Your task to perform on an android device: Show me popular games on the Play Store Image 0: 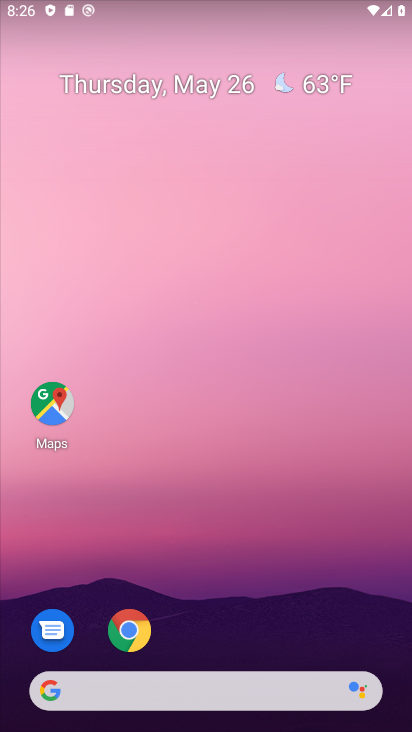
Step 0: click (231, 245)
Your task to perform on an android device: Show me popular games on the Play Store Image 1: 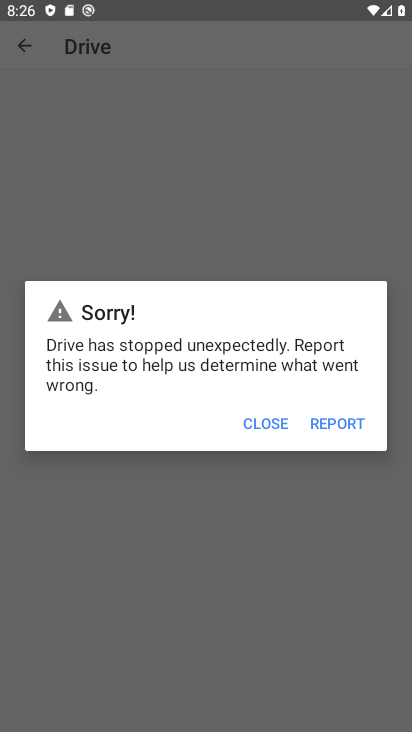
Step 1: press back button
Your task to perform on an android device: Show me popular games on the Play Store Image 2: 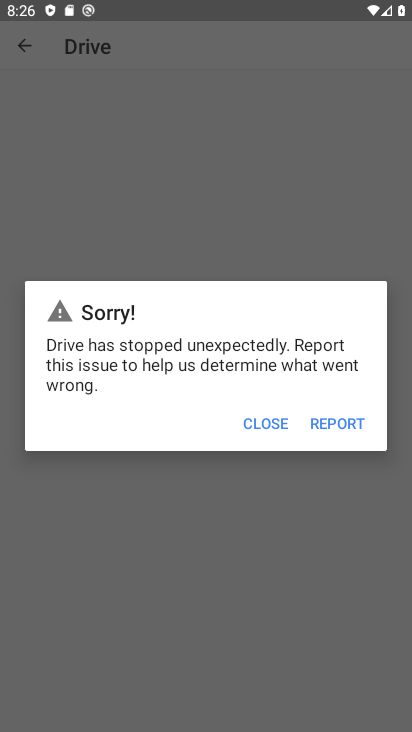
Step 2: press back button
Your task to perform on an android device: Show me popular games on the Play Store Image 3: 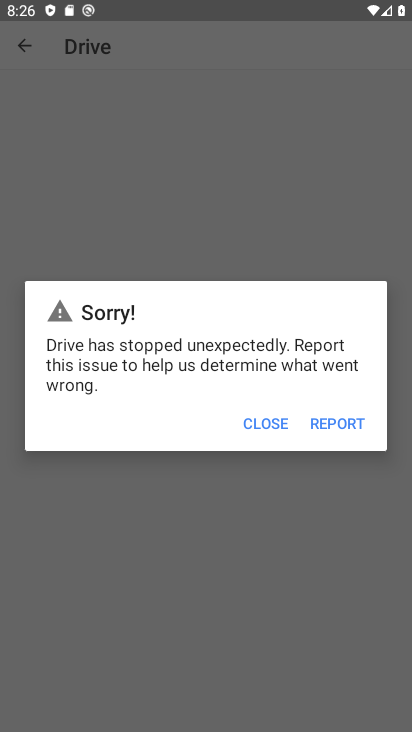
Step 3: press back button
Your task to perform on an android device: Show me popular games on the Play Store Image 4: 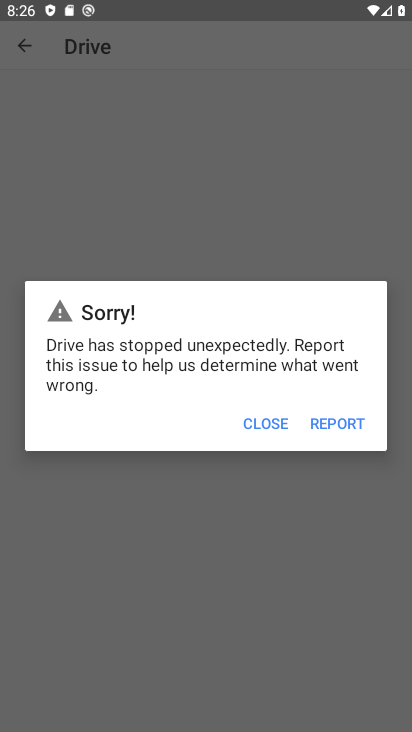
Step 4: press back button
Your task to perform on an android device: Show me popular games on the Play Store Image 5: 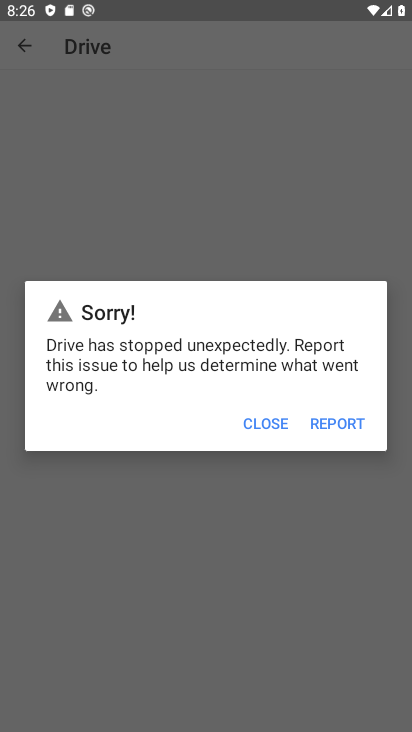
Step 5: click (271, 423)
Your task to perform on an android device: Show me popular games on the Play Store Image 6: 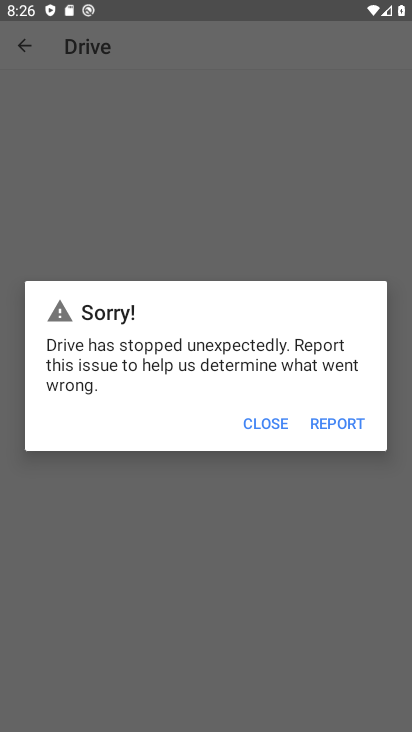
Step 6: click (272, 423)
Your task to perform on an android device: Show me popular games on the Play Store Image 7: 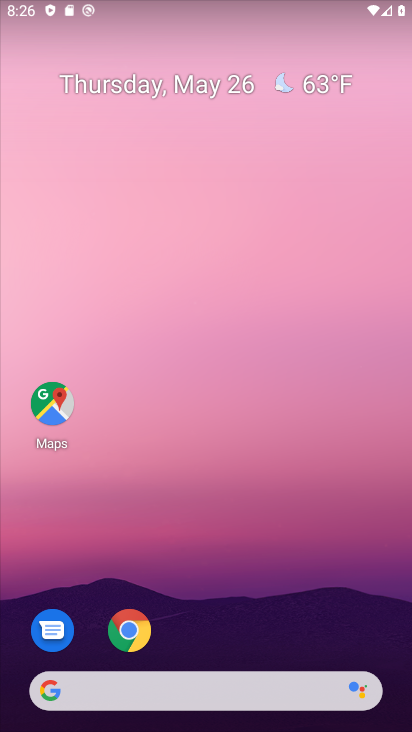
Step 7: drag from (202, 694) to (196, 128)
Your task to perform on an android device: Show me popular games on the Play Store Image 8: 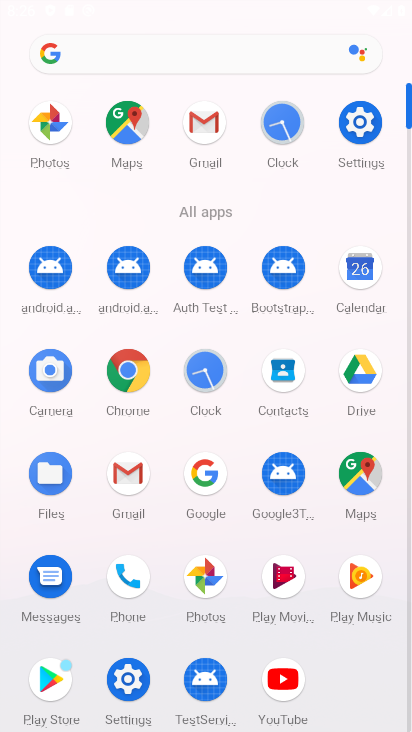
Step 8: click (55, 683)
Your task to perform on an android device: Show me popular games on the Play Store Image 9: 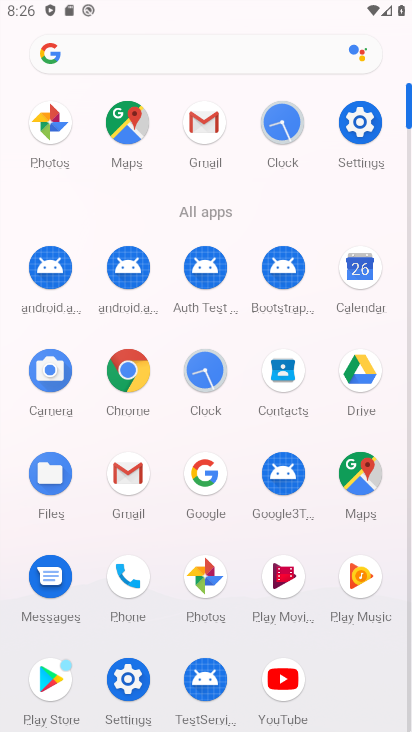
Step 9: click (56, 683)
Your task to perform on an android device: Show me popular games on the Play Store Image 10: 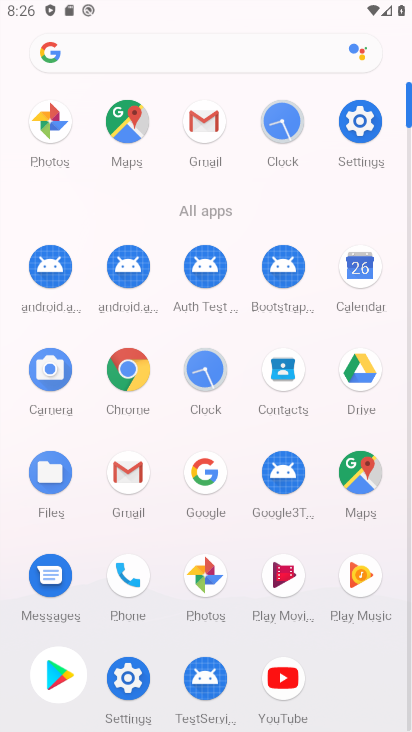
Step 10: click (52, 679)
Your task to perform on an android device: Show me popular games on the Play Store Image 11: 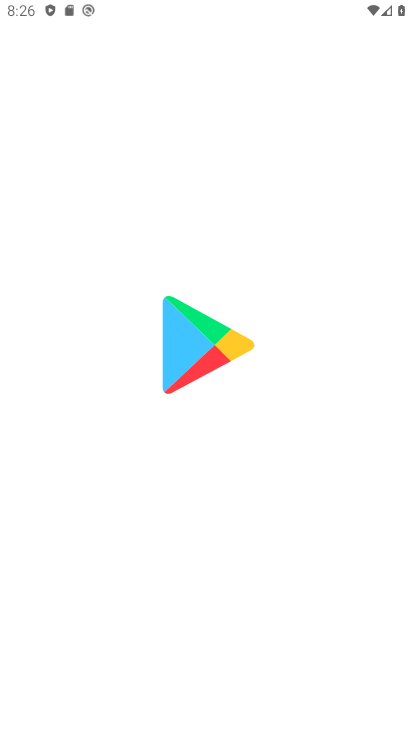
Step 11: click (54, 672)
Your task to perform on an android device: Show me popular games on the Play Store Image 12: 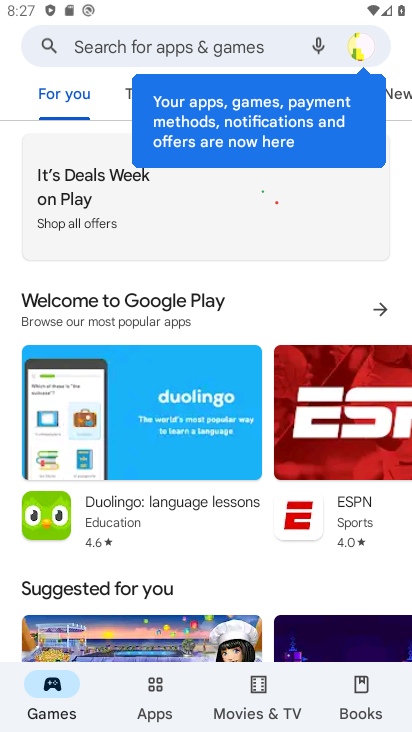
Step 12: click (113, 47)
Your task to perform on an android device: Show me popular games on the Play Store Image 13: 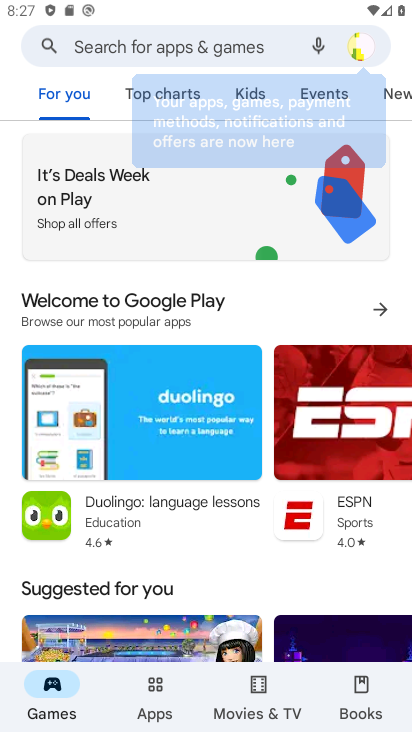
Step 13: click (118, 43)
Your task to perform on an android device: Show me popular games on the Play Store Image 14: 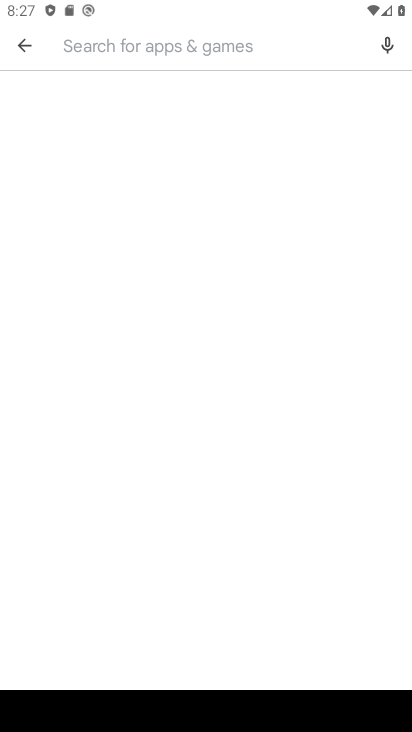
Step 14: type "games popular"
Your task to perform on an android device: Show me popular games on the Play Store Image 15: 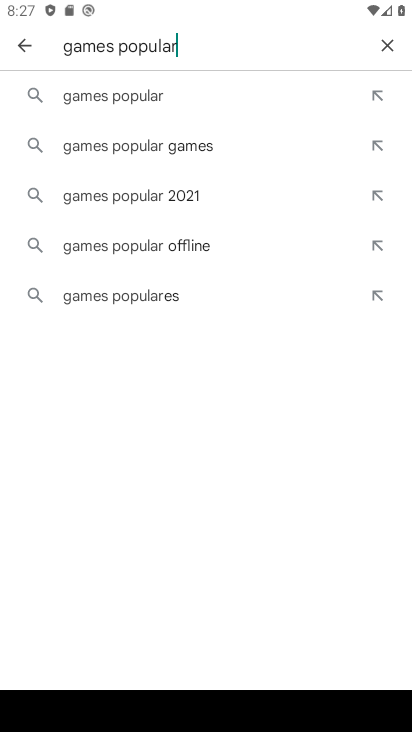
Step 15: click (141, 93)
Your task to perform on an android device: Show me popular games on the Play Store Image 16: 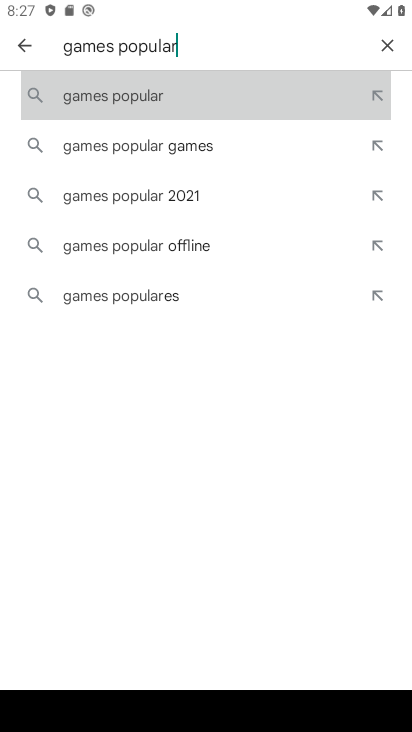
Step 16: click (143, 93)
Your task to perform on an android device: Show me popular games on the Play Store Image 17: 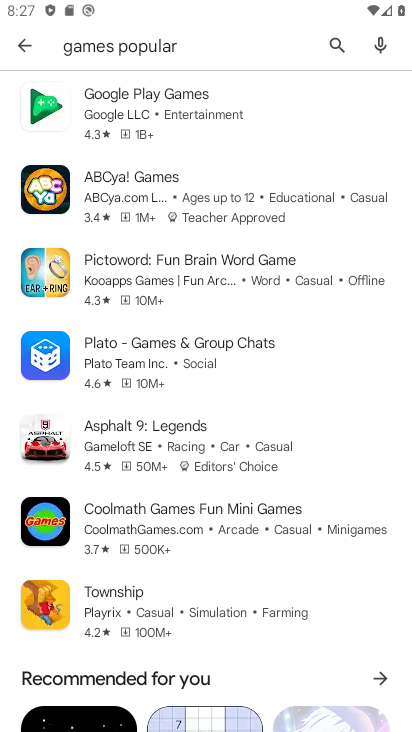
Step 17: task complete